Your task to perform on an android device: check google app version Image 0: 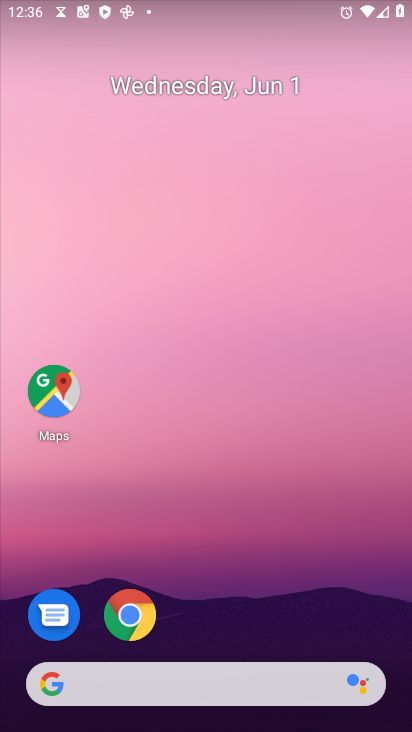
Step 0: drag from (343, 502) to (341, 42)
Your task to perform on an android device: check google app version Image 1: 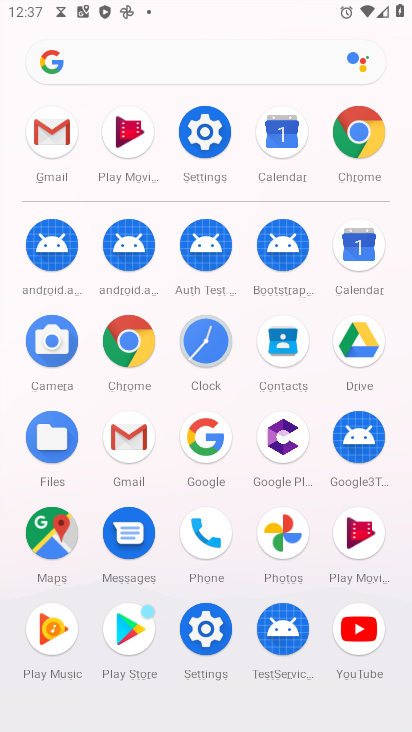
Step 1: click (190, 449)
Your task to perform on an android device: check google app version Image 2: 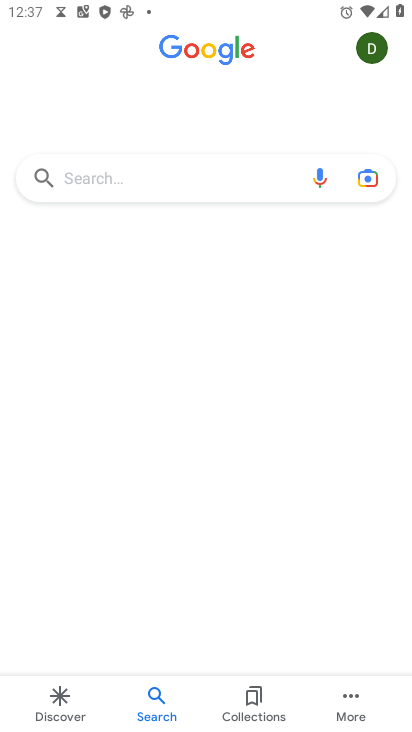
Step 2: click (346, 712)
Your task to perform on an android device: check google app version Image 3: 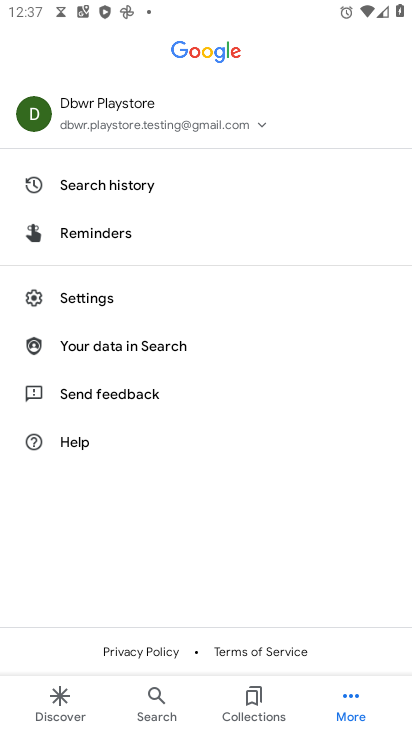
Step 3: click (60, 293)
Your task to perform on an android device: check google app version Image 4: 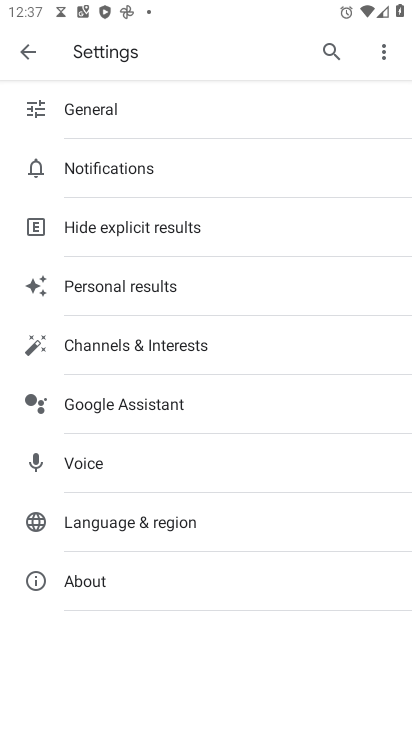
Step 4: click (153, 583)
Your task to perform on an android device: check google app version Image 5: 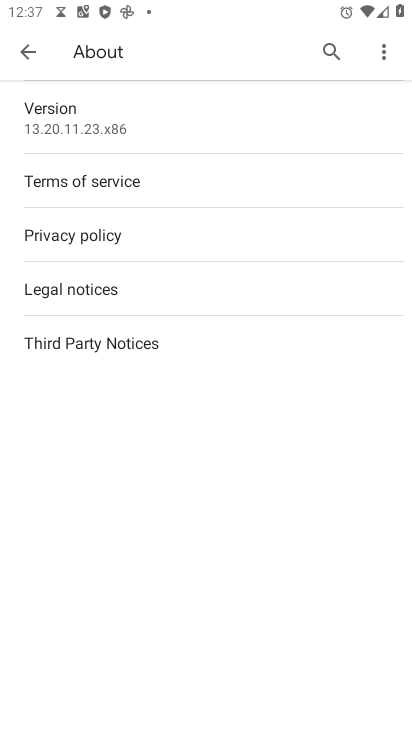
Step 5: click (93, 138)
Your task to perform on an android device: check google app version Image 6: 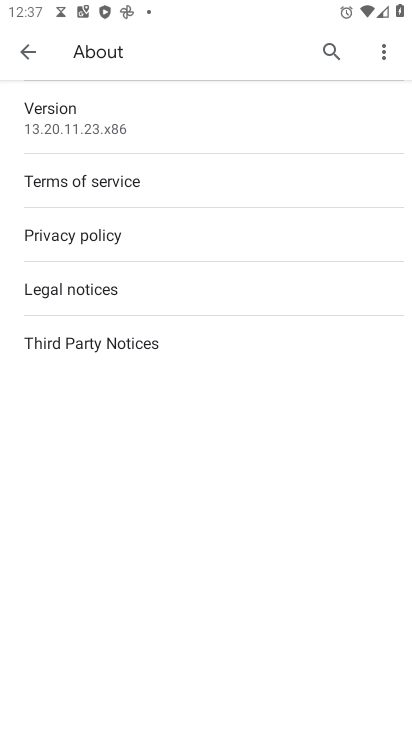
Step 6: task complete